Your task to perform on an android device: Open maps Image 0: 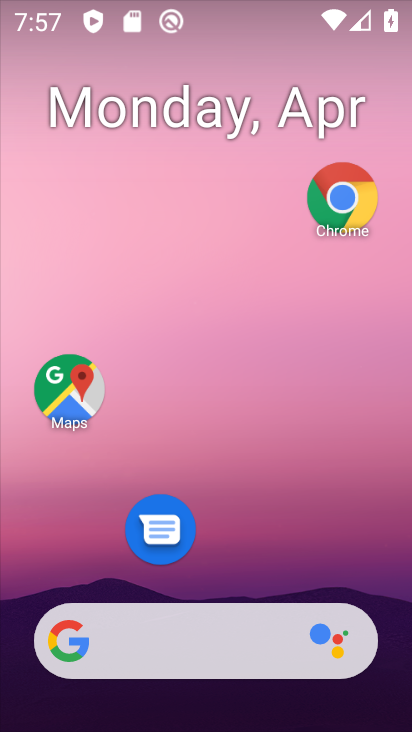
Step 0: click (82, 387)
Your task to perform on an android device: Open maps Image 1: 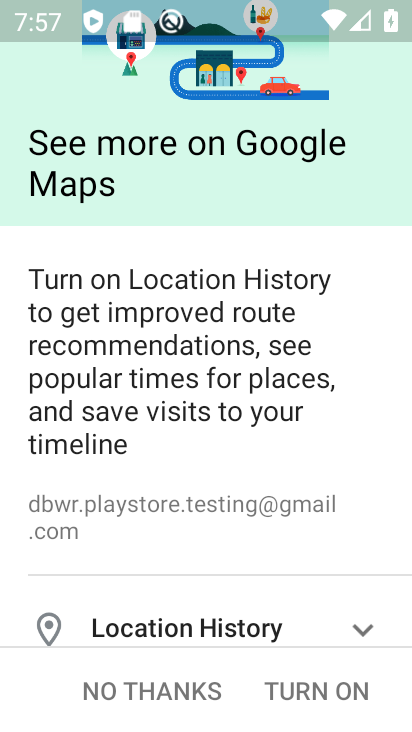
Step 1: click (225, 685)
Your task to perform on an android device: Open maps Image 2: 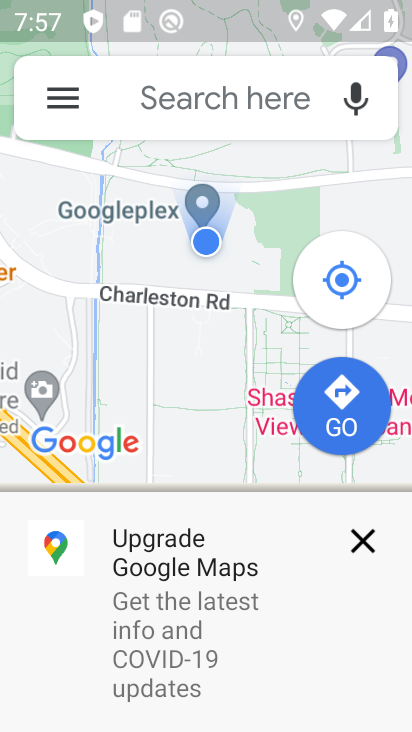
Step 2: task complete